Your task to perform on an android device: Go to privacy settings Image 0: 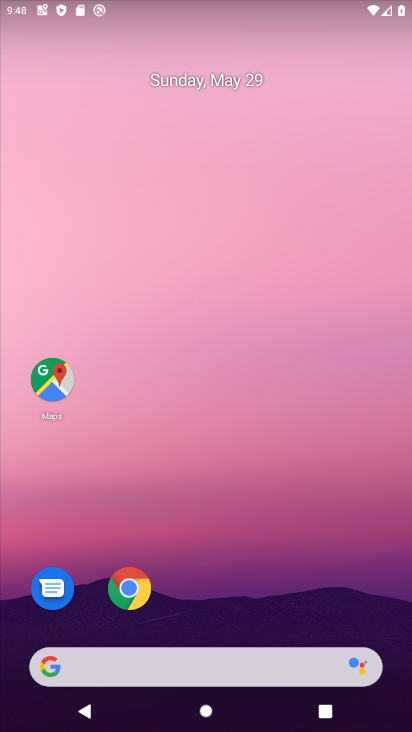
Step 0: drag from (275, 593) to (258, 162)
Your task to perform on an android device: Go to privacy settings Image 1: 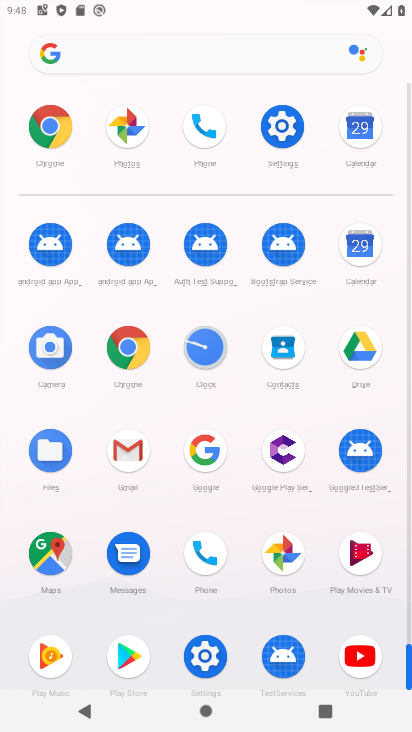
Step 1: click (204, 662)
Your task to perform on an android device: Go to privacy settings Image 2: 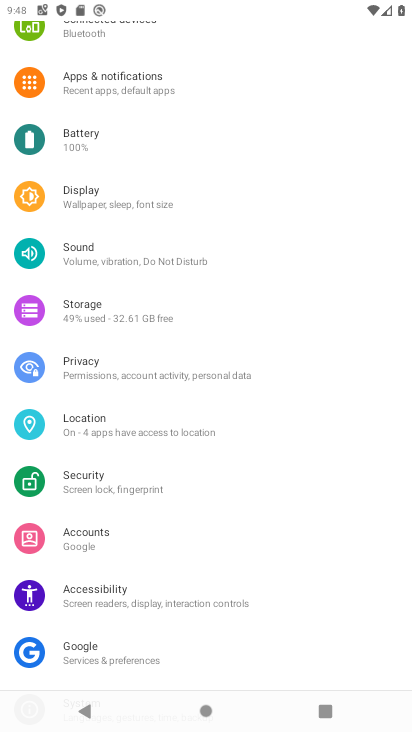
Step 2: click (122, 373)
Your task to perform on an android device: Go to privacy settings Image 3: 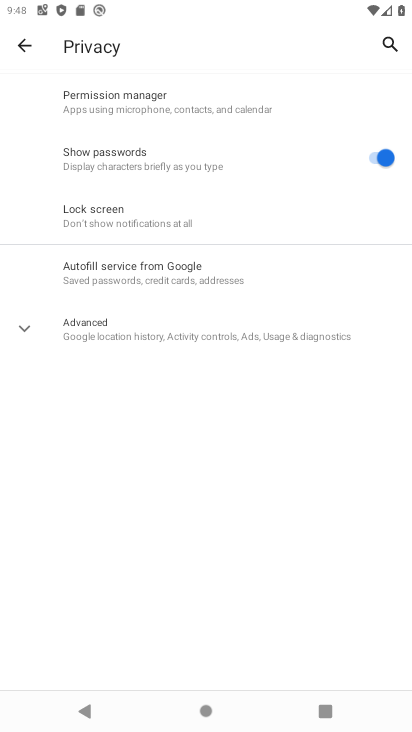
Step 3: task complete